Your task to perform on an android device: Show me recent news Image 0: 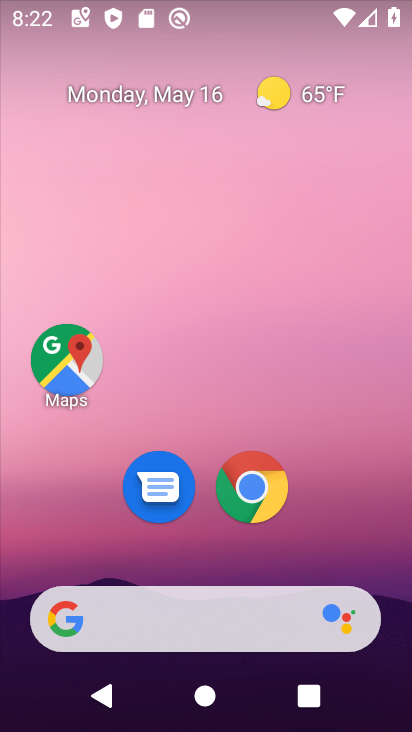
Step 0: drag from (0, 239) to (404, 373)
Your task to perform on an android device: Show me recent news Image 1: 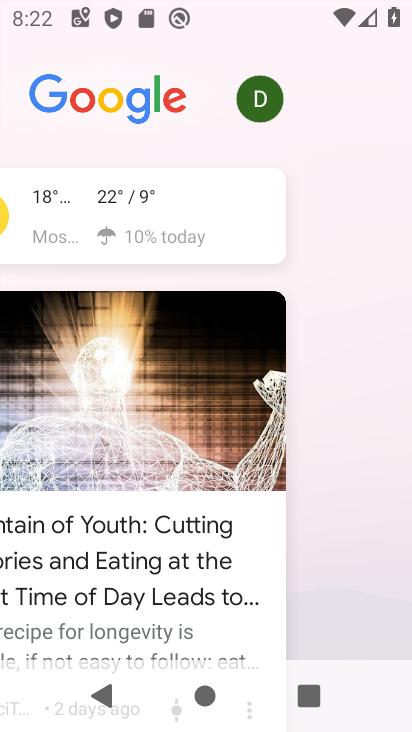
Step 1: task complete